Your task to perform on an android device: add a contact Image 0: 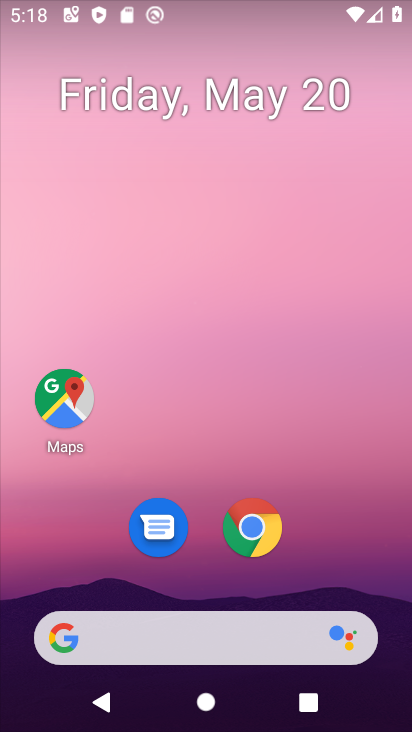
Step 0: drag from (345, 599) to (356, 44)
Your task to perform on an android device: add a contact Image 1: 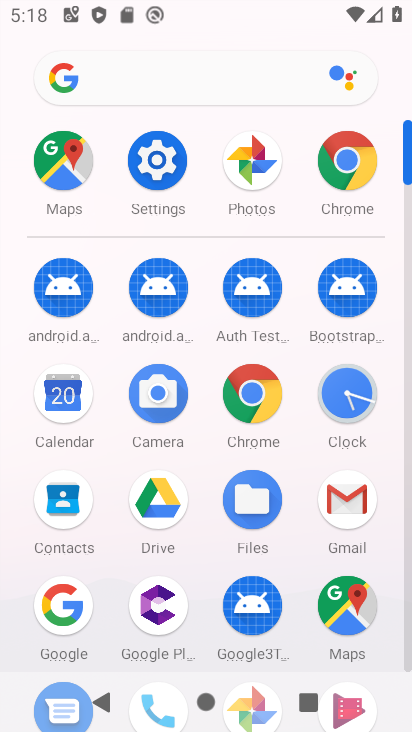
Step 1: click (63, 513)
Your task to perform on an android device: add a contact Image 2: 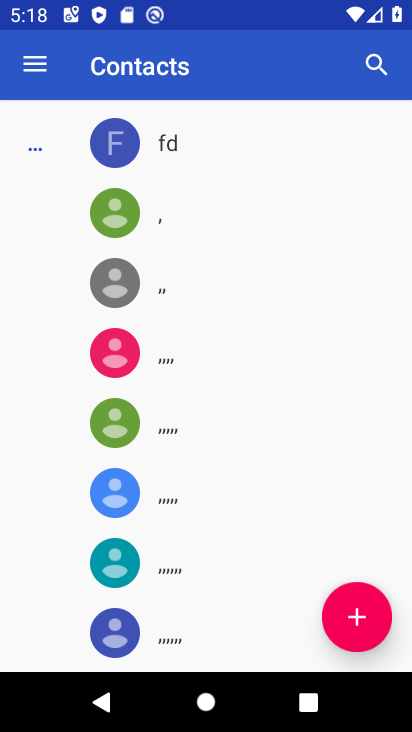
Step 2: click (367, 613)
Your task to perform on an android device: add a contact Image 3: 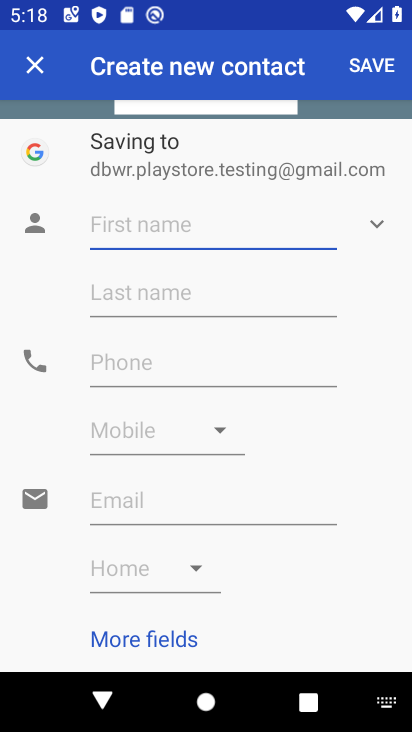
Step 3: type "fgdhfjh"
Your task to perform on an android device: add a contact Image 4: 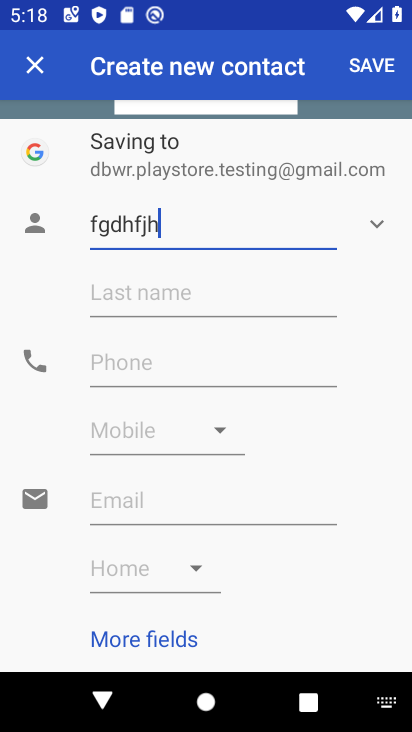
Step 4: click (166, 372)
Your task to perform on an android device: add a contact Image 5: 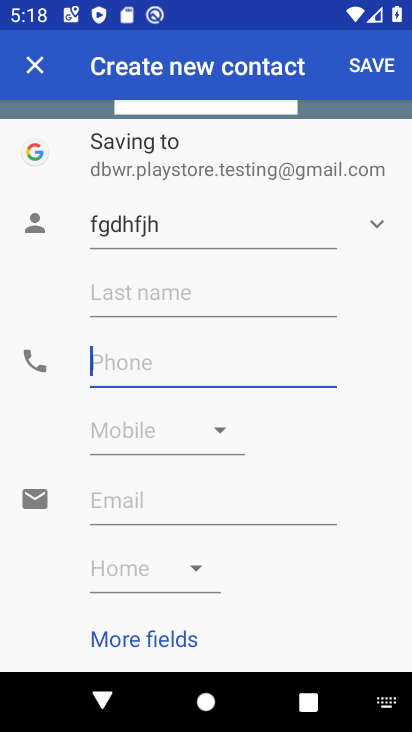
Step 5: type "878656788"
Your task to perform on an android device: add a contact Image 6: 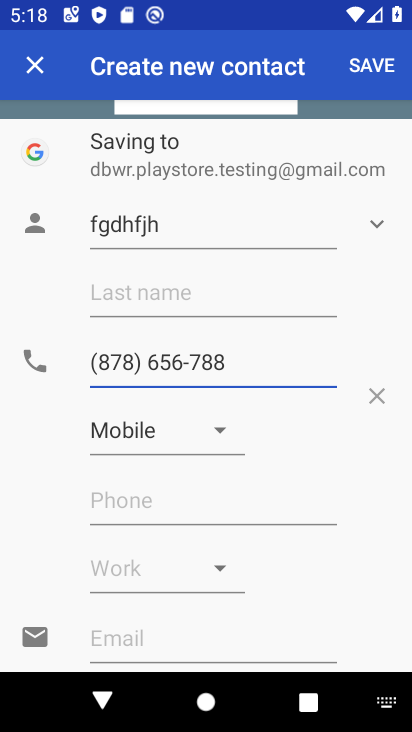
Step 6: click (388, 66)
Your task to perform on an android device: add a contact Image 7: 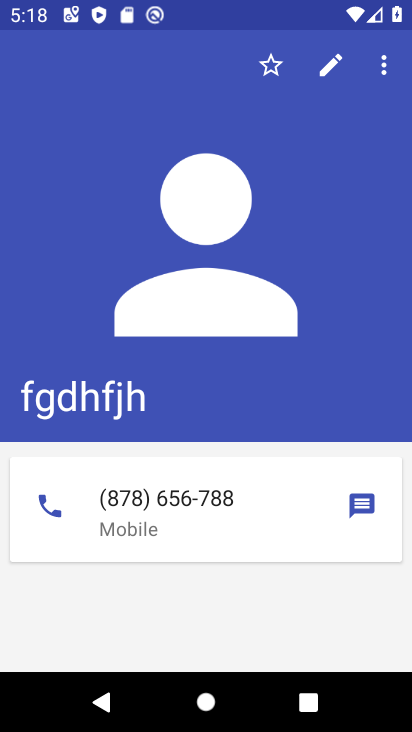
Step 7: task complete